Your task to perform on an android device: open app "DoorDash - Food Delivery" (install if not already installed), go to login, and select forgot password Image 0: 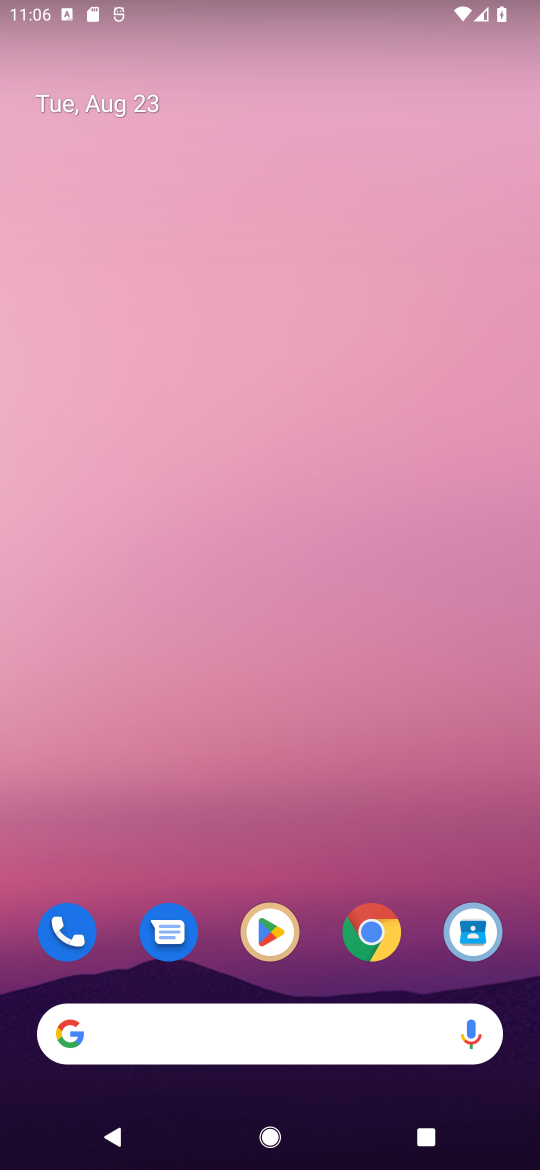
Step 0: click (289, 926)
Your task to perform on an android device: open app "DoorDash - Food Delivery" (install if not already installed), go to login, and select forgot password Image 1: 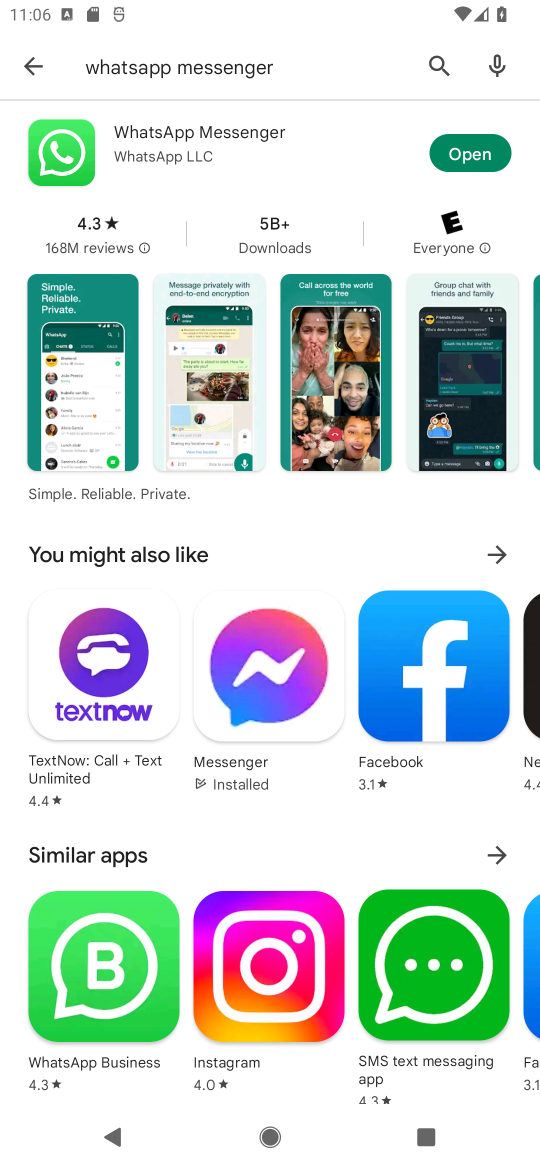
Step 1: click (438, 71)
Your task to perform on an android device: open app "DoorDash - Food Delivery" (install if not already installed), go to login, and select forgot password Image 2: 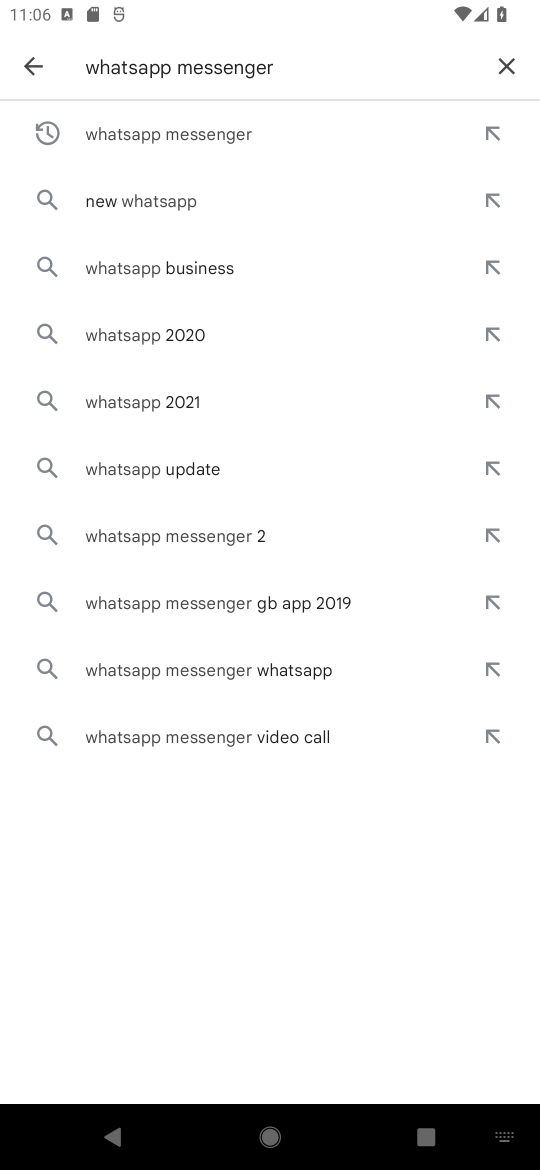
Step 2: click (505, 60)
Your task to perform on an android device: open app "DoorDash - Food Delivery" (install if not already installed), go to login, and select forgot password Image 3: 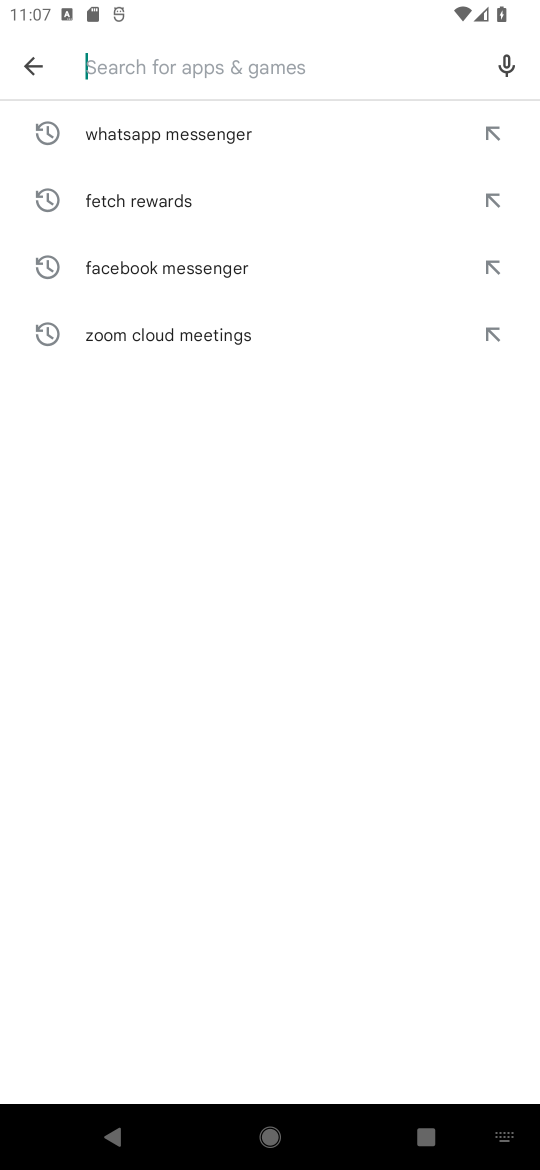
Step 3: click (208, 69)
Your task to perform on an android device: open app "DoorDash - Food Delivery" (install if not already installed), go to login, and select forgot password Image 4: 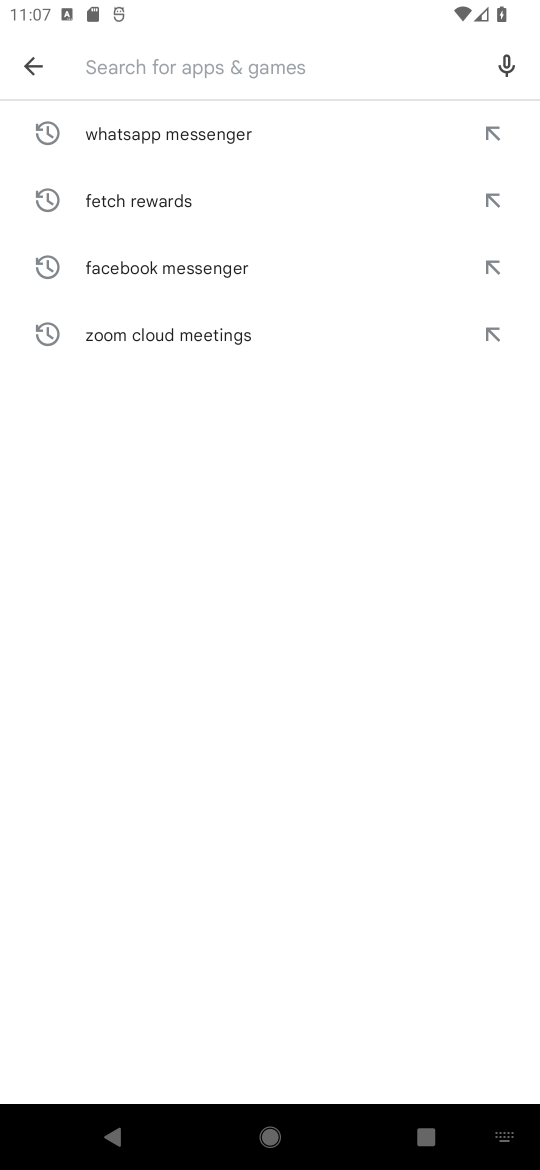
Step 4: type "DoorDash"
Your task to perform on an android device: open app "DoorDash - Food Delivery" (install if not already installed), go to login, and select forgot password Image 5: 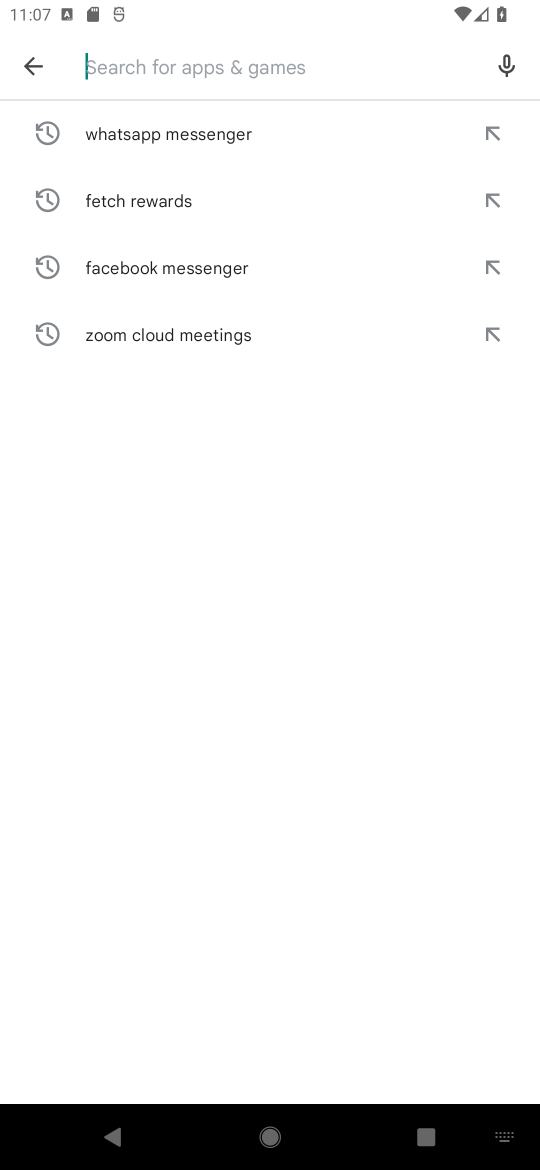
Step 5: click (364, 734)
Your task to perform on an android device: open app "DoorDash - Food Delivery" (install if not already installed), go to login, and select forgot password Image 6: 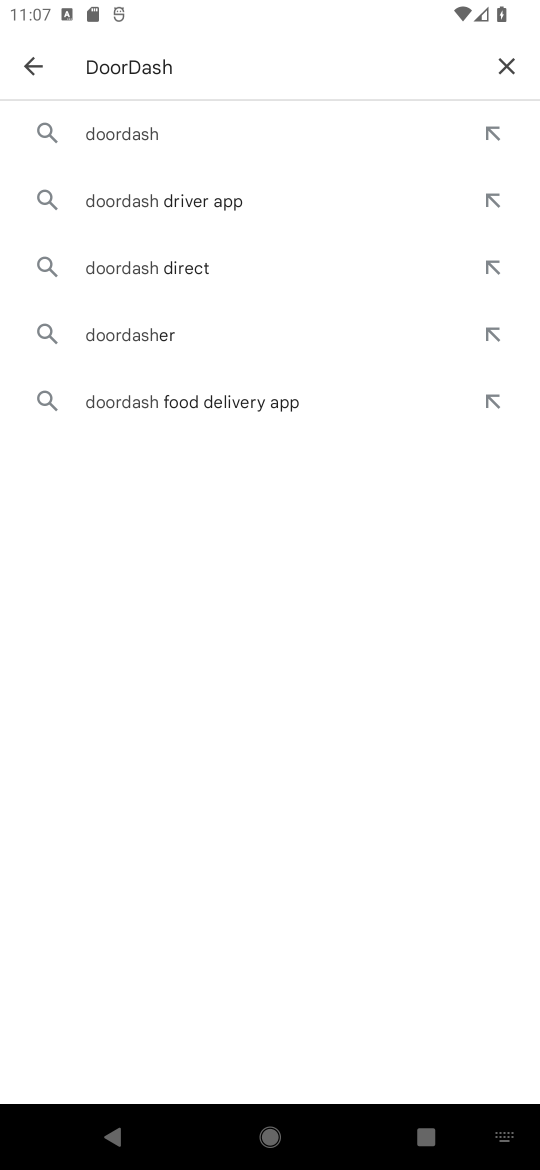
Step 6: click (128, 142)
Your task to perform on an android device: open app "DoorDash - Food Delivery" (install if not already installed), go to login, and select forgot password Image 7: 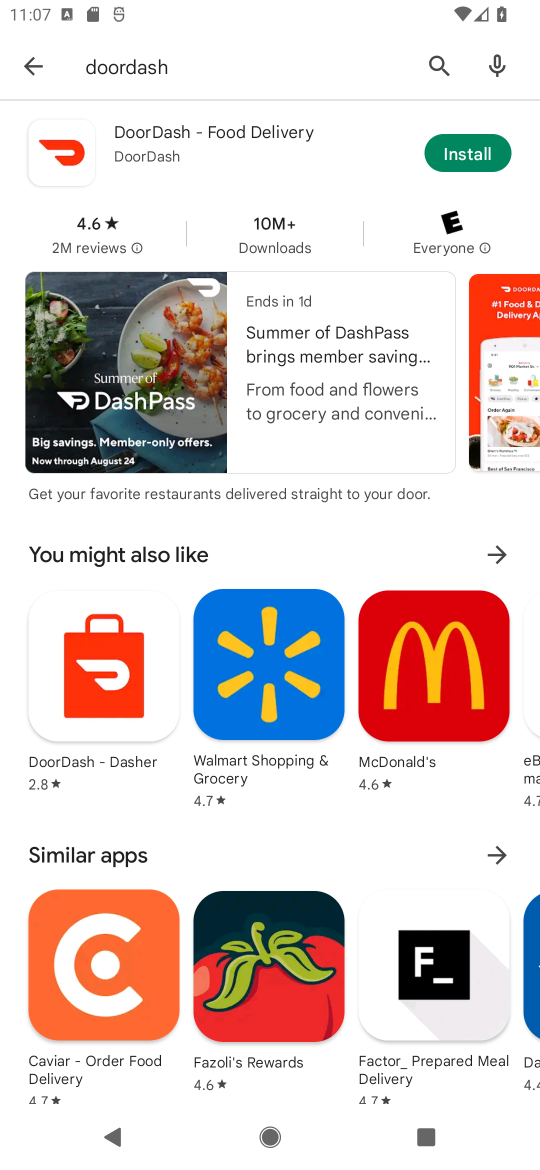
Step 7: click (452, 142)
Your task to perform on an android device: open app "DoorDash - Food Delivery" (install if not already installed), go to login, and select forgot password Image 8: 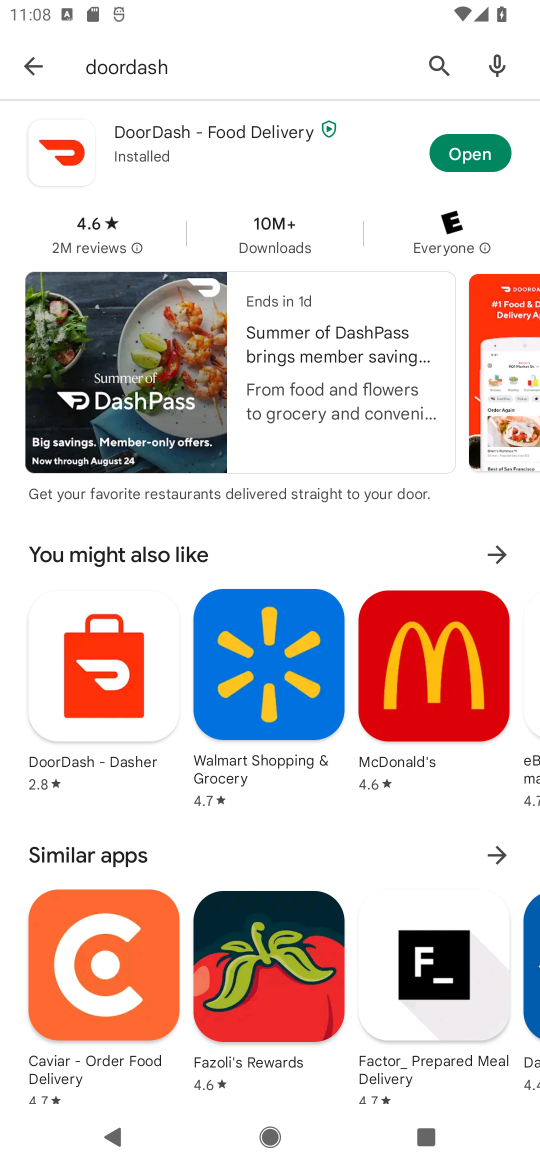
Step 8: click (456, 149)
Your task to perform on an android device: open app "DoorDash - Food Delivery" (install if not already installed), go to login, and select forgot password Image 9: 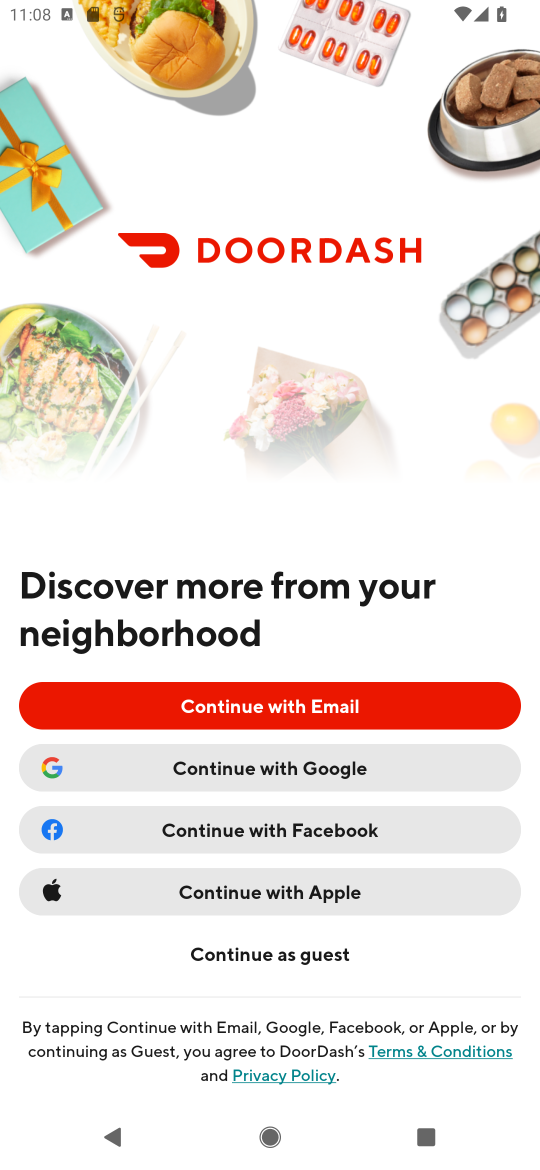
Step 9: click (250, 710)
Your task to perform on an android device: open app "DoorDash - Food Delivery" (install if not already installed), go to login, and select forgot password Image 10: 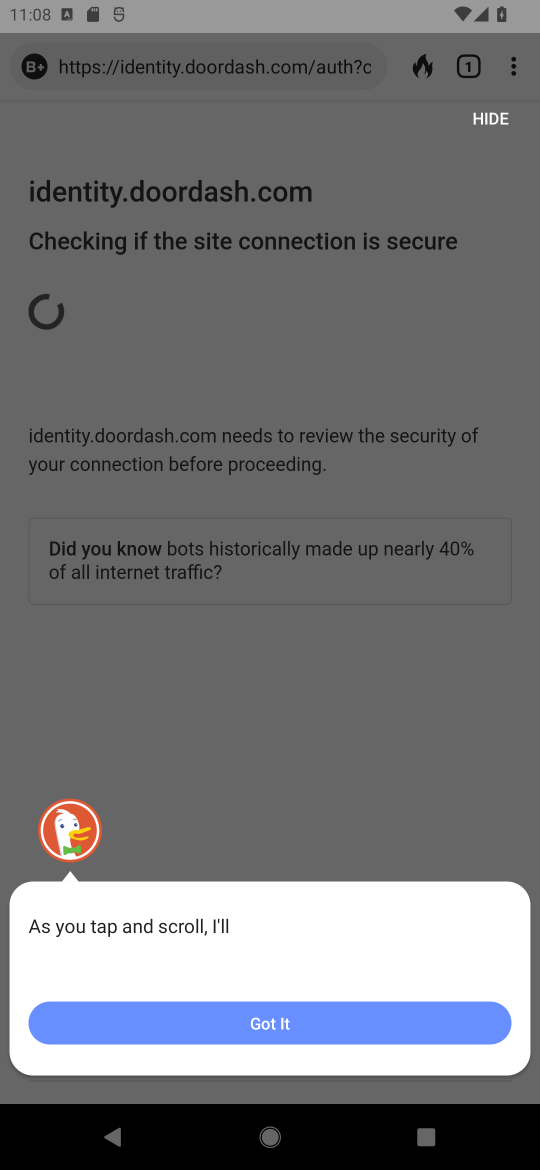
Step 10: task complete